Your task to perform on an android device: check out phone information Image 0: 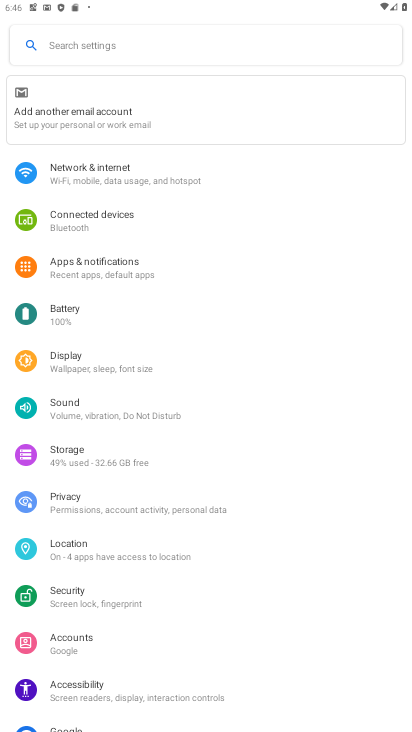
Step 0: drag from (238, 604) to (268, 148)
Your task to perform on an android device: check out phone information Image 1: 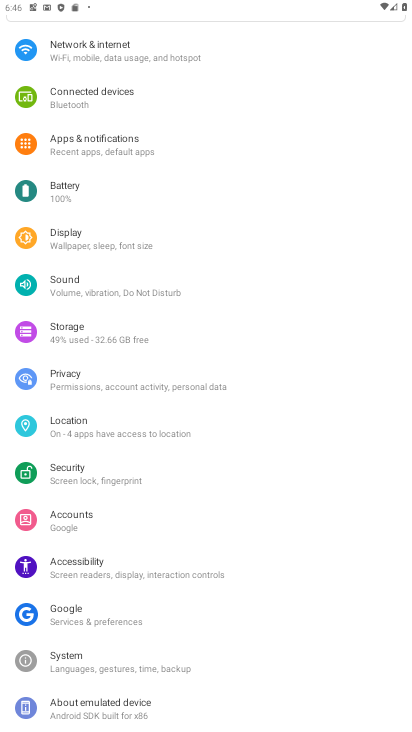
Step 1: drag from (201, 638) to (264, 235)
Your task to perform on an android device: check out phone information Image 2: 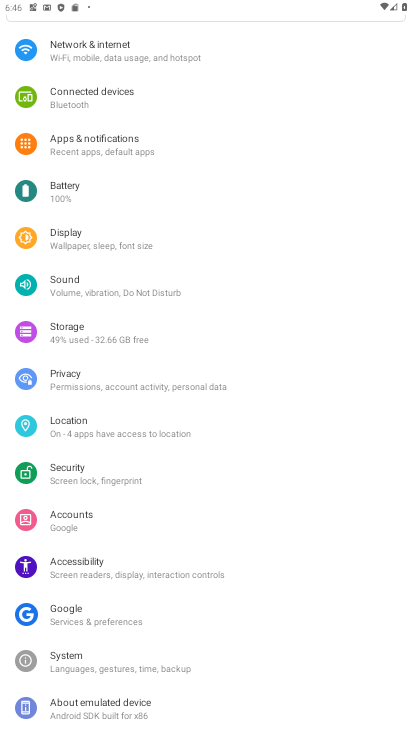
Step 2: click (77, 699)
Your task to perform on an android device: check out phone information Image 3: 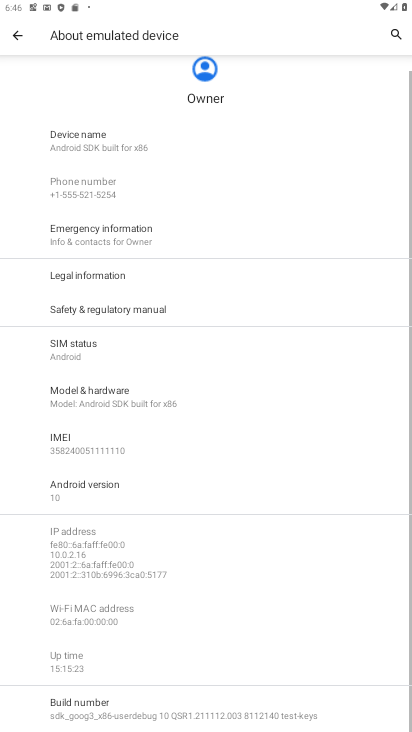
Step 3: task complete